Your task to perform on an android device: open device folders in google photos Image 0: 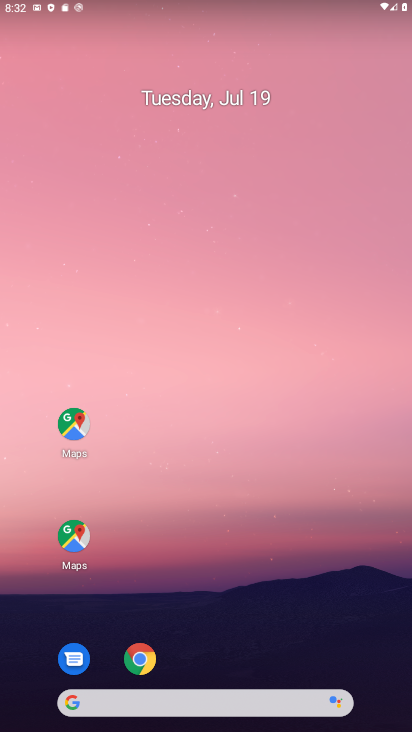
Step 0: click (185, 85)
Your task to perform on an android device: open device folders in google photos Image 1: 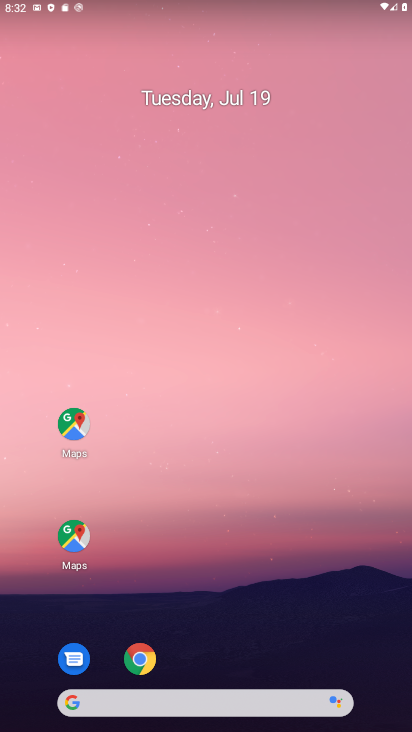
Step 1: drag from (243, 247) to (181, 37)
Your task to perform on an android device: open device folders in google photos Image 2: 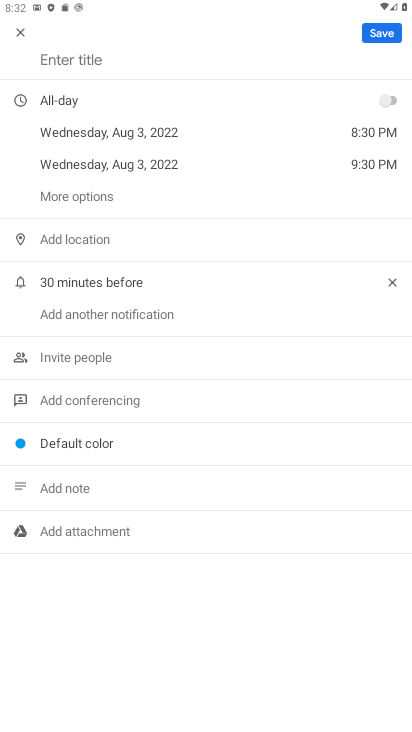
Step 2: click (16, 27)
Your task to perform on an android device: open device folders in google photos Image 3: 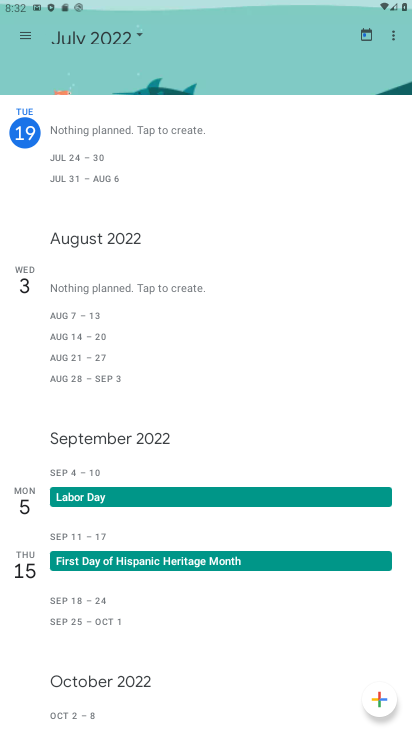
Step 3: press back button
Your task to perform on an android device: open device folders in google photos Image 4: 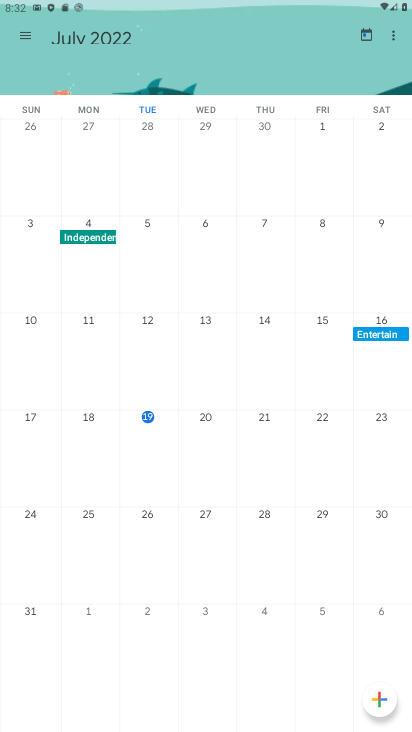
Step 4: press home button
Your task to perform on an android device: open device folders in google photos Image 5: 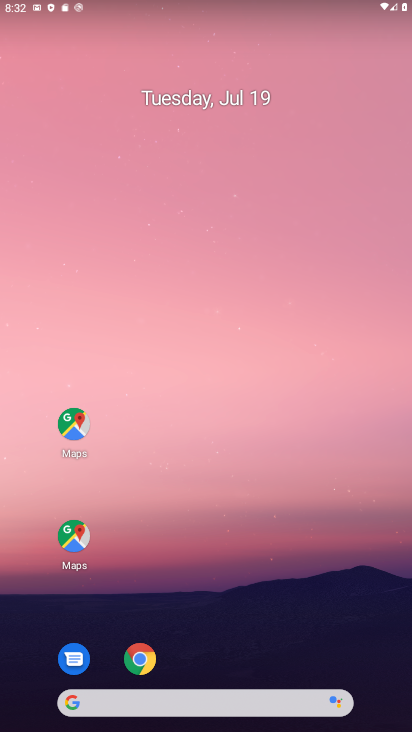
Step 5: click (189, 146)
Your task to perform on an android device: open device folders in google photos Image 6: 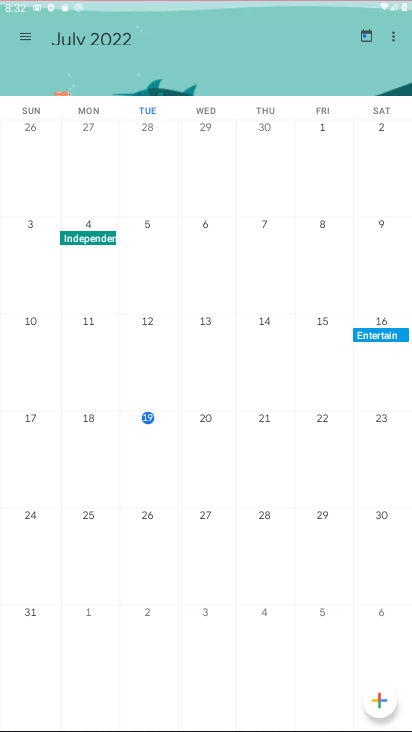
Step 6: drag from (288, 525) to (250, 141)
Your task to perform on an android device: open device folders in google photos Image 7: 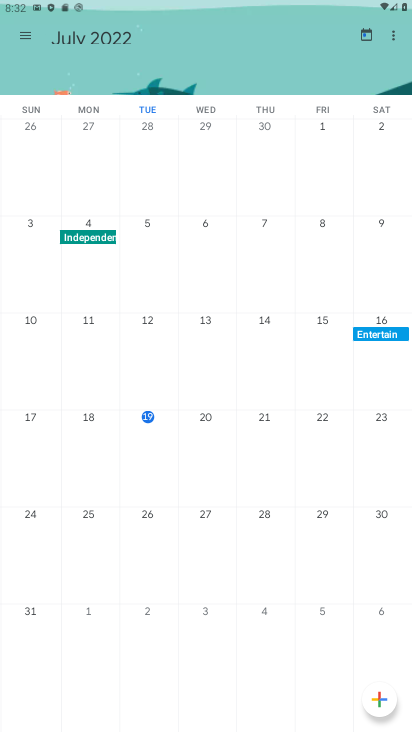
Step 7: click (216, 209)
Your task to perform on an android device: open device folders in google photos Image 8: 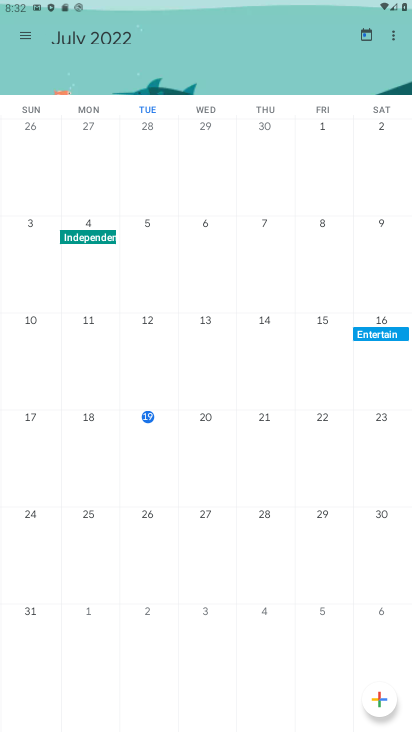
Step 8: press back button
Your task to perform on an android device: open device folders in google photos Image 9: 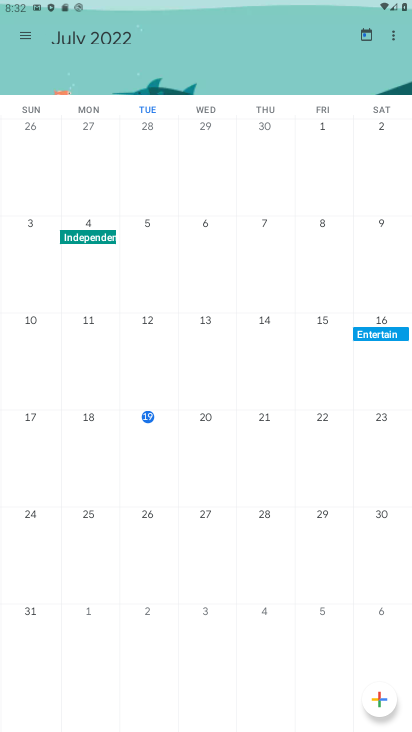
Step 9: press back button
Your task to perform on an android device: open device folders in google photos Image 10: 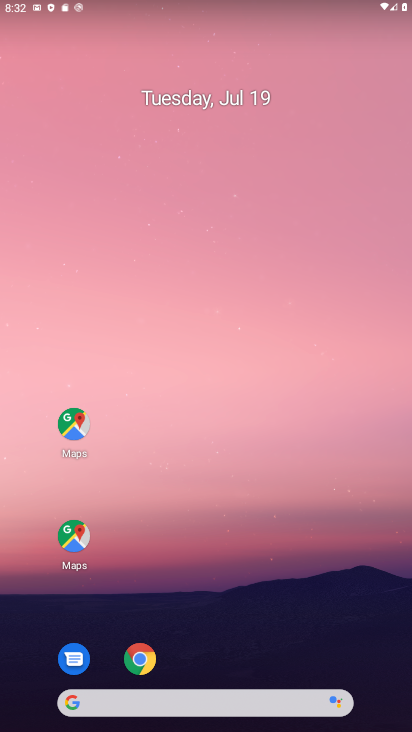
Step 10: drag from (207, 570) to (170, 140)
Your task to perform on an android device: open device folders in google photos Image 11: 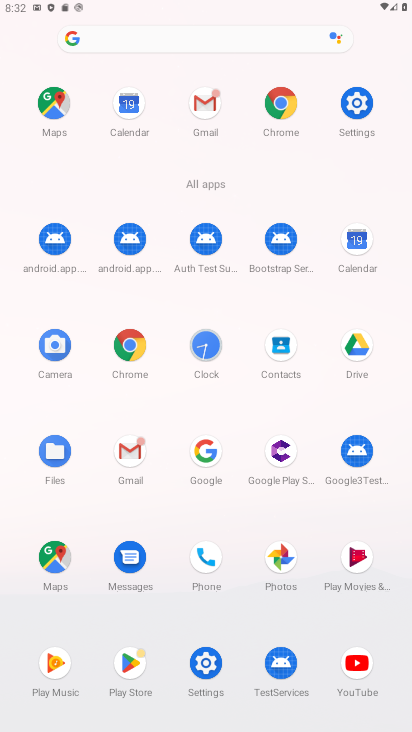
Step 11: click (288, 564)
Your task to perform on an android device: open device folders in google photos Image 12: 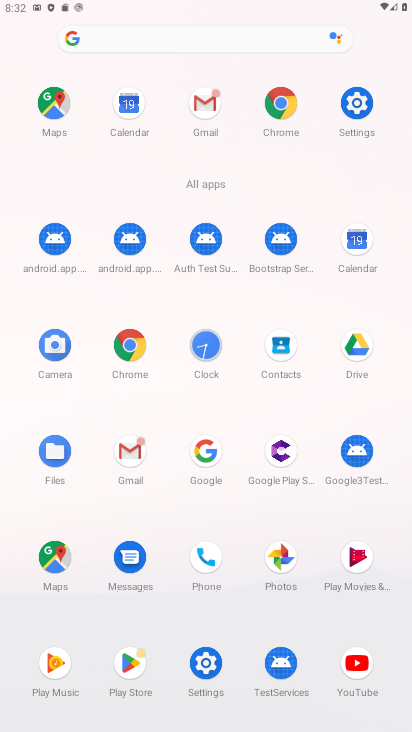
Step 12: click (289, 563)
Your task to perform on an android device: open device folders in google photos Image 13: 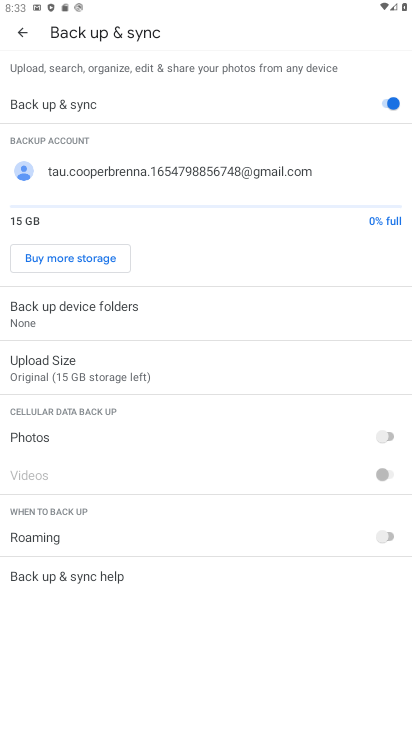
Step 13: click (285, 560)
Your task to perform on an android device: open device folders in google photos Image 14: 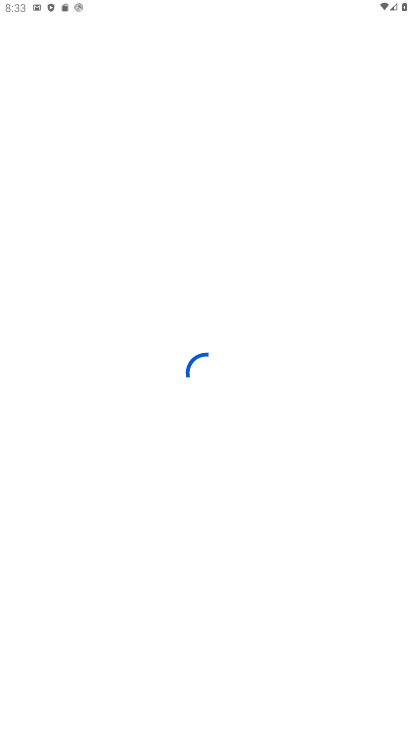
Step 14: press back button
Your task to perform on an android device: open device folders in google photos Image 15: 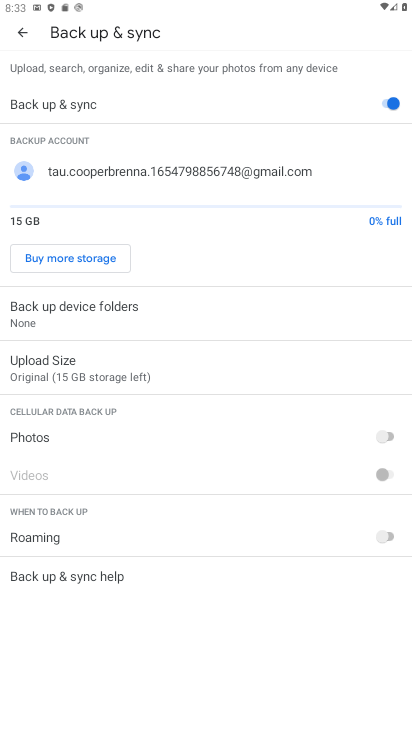
Step 15: click (19, 39)
Your task to perform on an android device: open device folders in google photos Image 16: 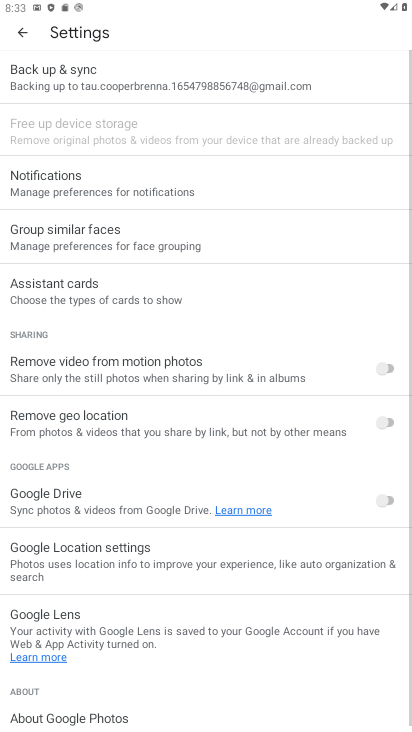
Step 16: click (19, 39)
Your task to perform on an android device: open device folders in google photos Image 17: 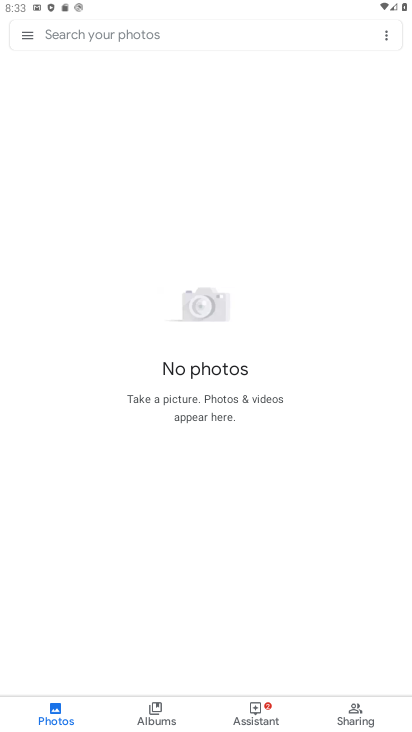
Step 17: click (29, 38)
Your task to perform on an android device: open device folders in google photos Image 18: 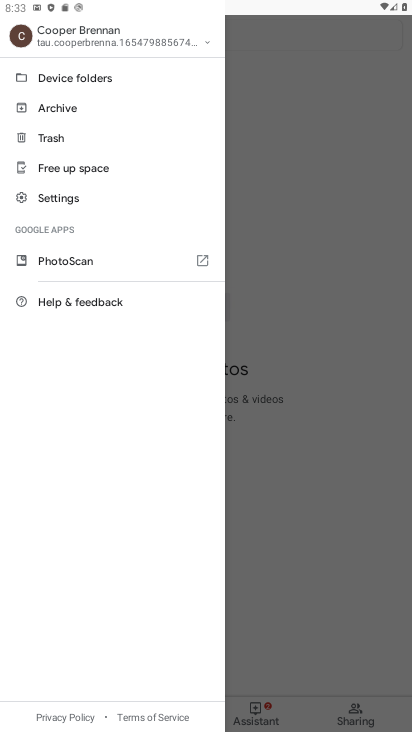
Step 18: click (68, 80)
Your task to perform on an android device: open device folders in google photos Image 19: 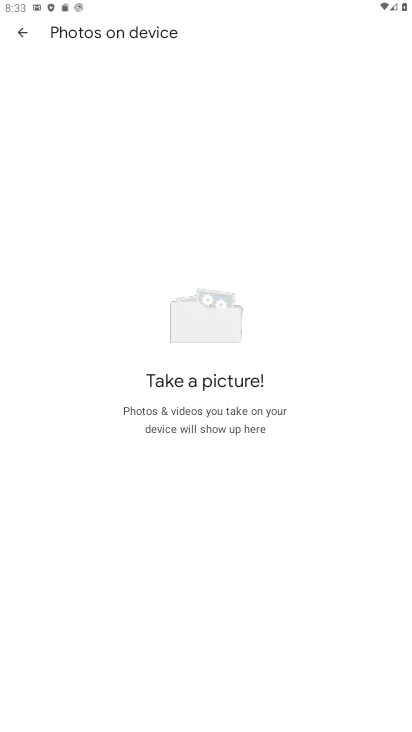
Step 19: task complete